Your task to perform on an android device: star an email in the gmail app Image 0: 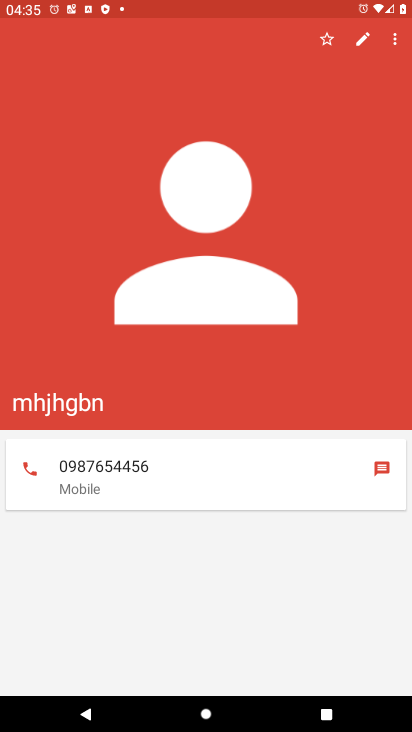
Step 0: press home button
Your task to perform on an android device: star an email in the gmail app Image 1: 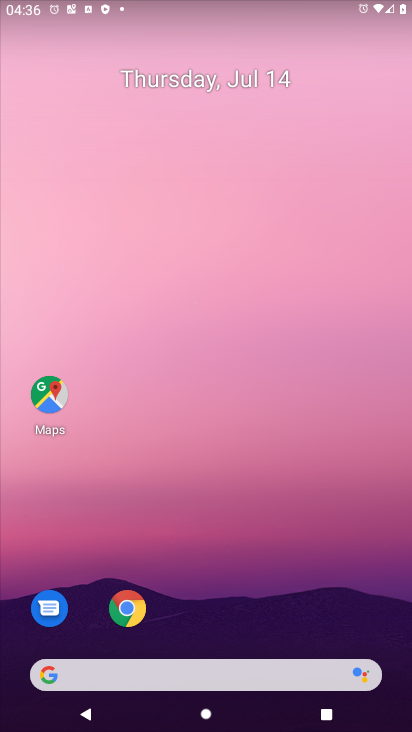
Step 1: drag from (370, 614) to (326, 123)
Your task to perform on an android device: star an email in the gmail app Image 2: 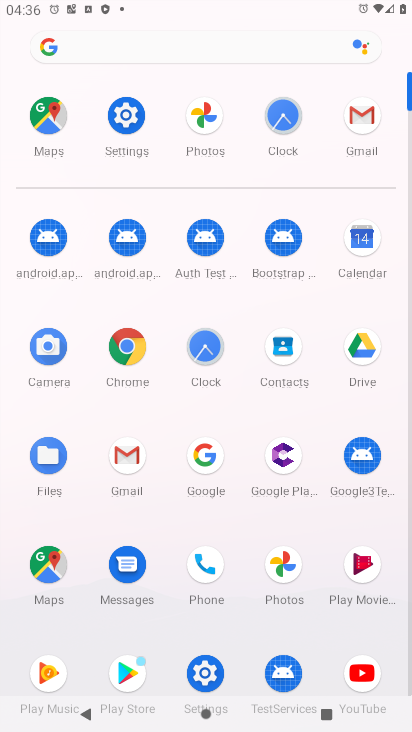
Step 2: click (126, 454)
Your task to perform on an android device: star an email in the gmail app Image 3: 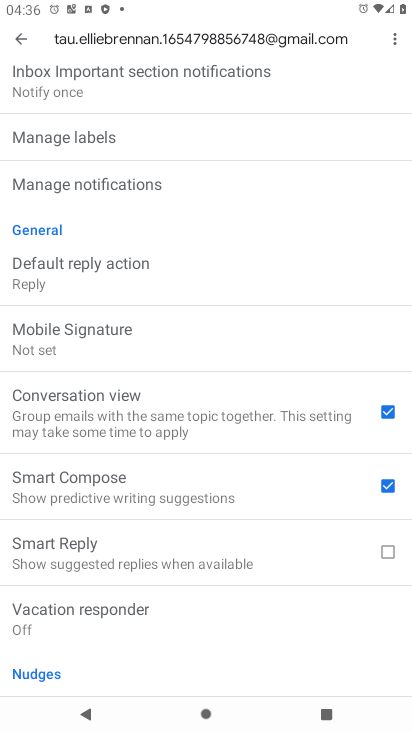
Step 3: press back button
Your task to perform on an android device: star an email in the gmail app Image 4: 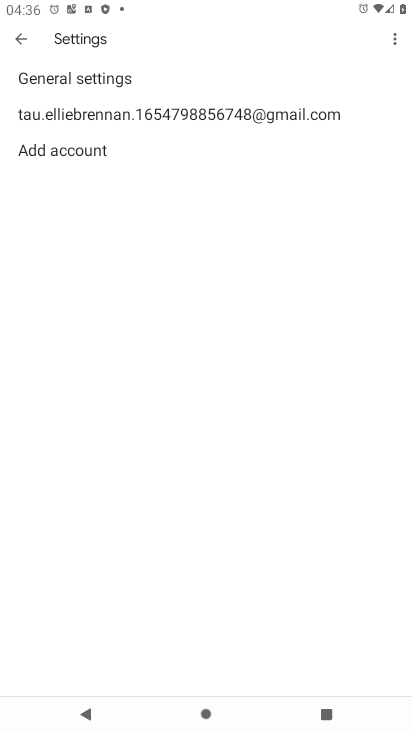
Step 4: press back button
Your task to perform on an android device: star an email in the gmail app Image 5: 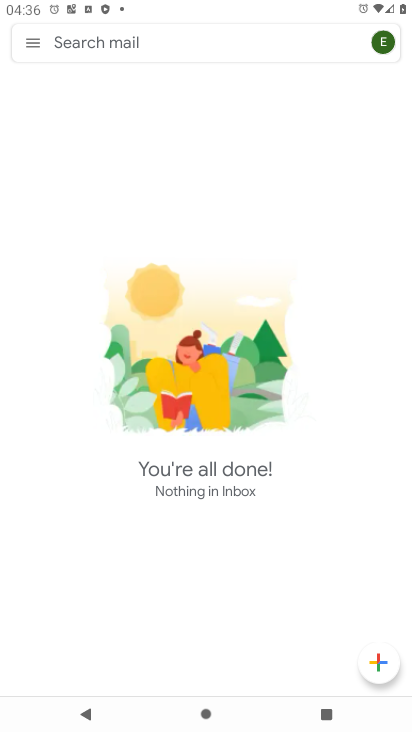
Step 5: click (20, 41)
Your task to perform on an android device: star an email in the gmail app Image 6: 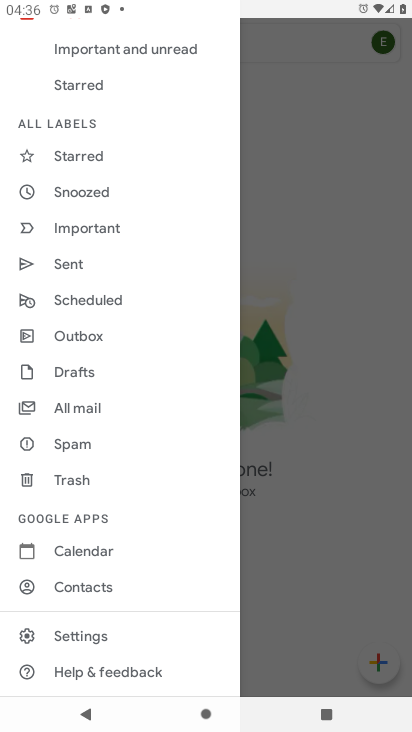
Step 6: click (73, 403)
Your task to perform on an android device: star an email in the gmail app Image 7: 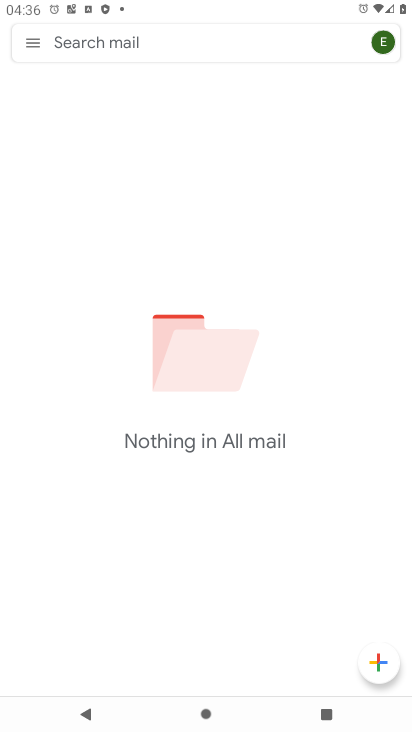
Step 7: task complete